Your task to perform on an android device: add a contact in the contacts app Image 0: 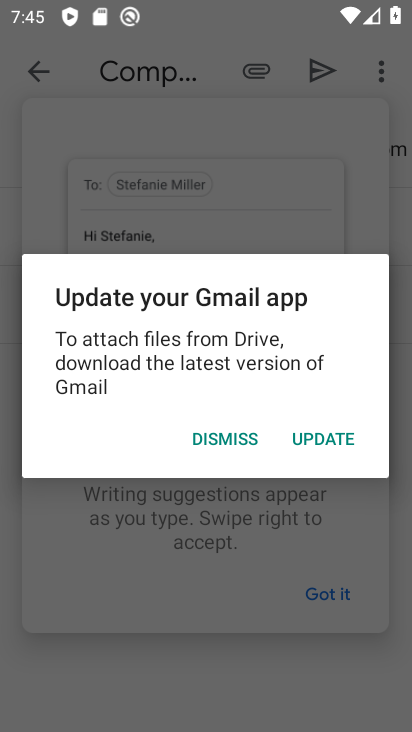
Step 0: press home button
Your task to perform on an android device: add a contact in the contacts app Image 1: 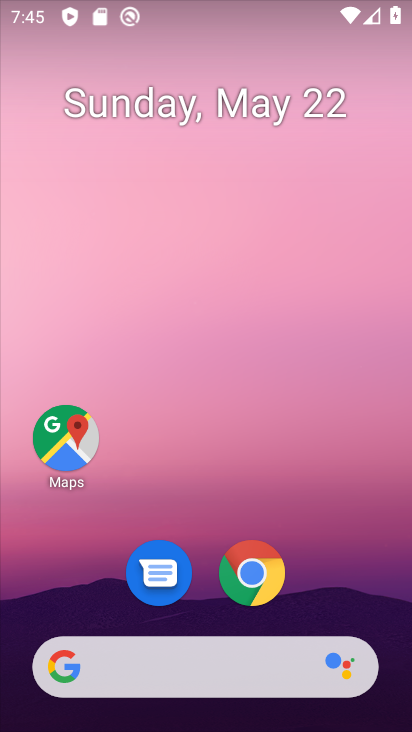
Step 1: drag from (331, 616) to (365, 108)
Your task to perform on an android device: add a contact in the contacts app Image 2: 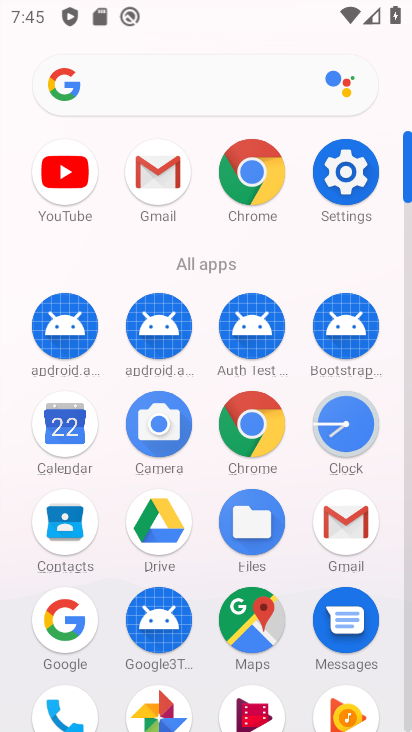
Step 2: click (56, 548)
Your task to perform on an android device: add a contact in the contacts app Image 3: 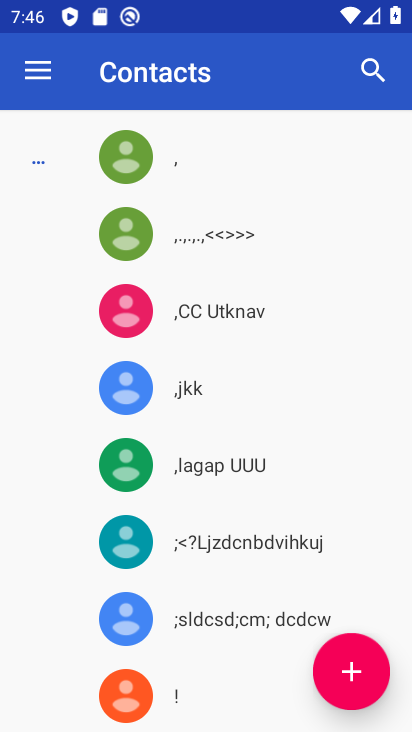
Step 3: click (353, 678)
Your task to perform on an android device: add a contact in the contacts app Image 4: 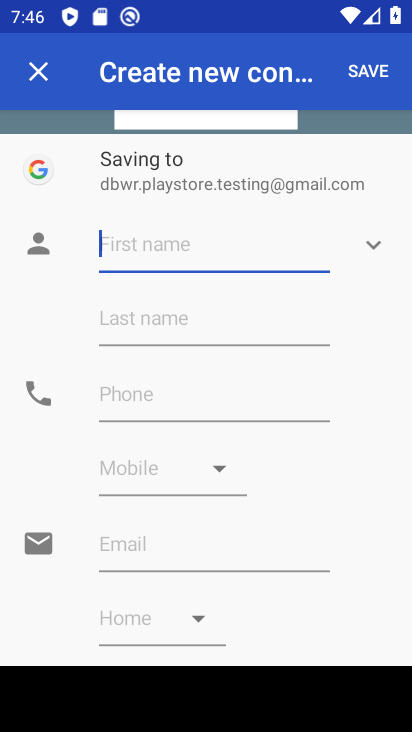
Step 4: type "harish"
Your task to perform on an android device: add a contact in the contacts app Image 5: 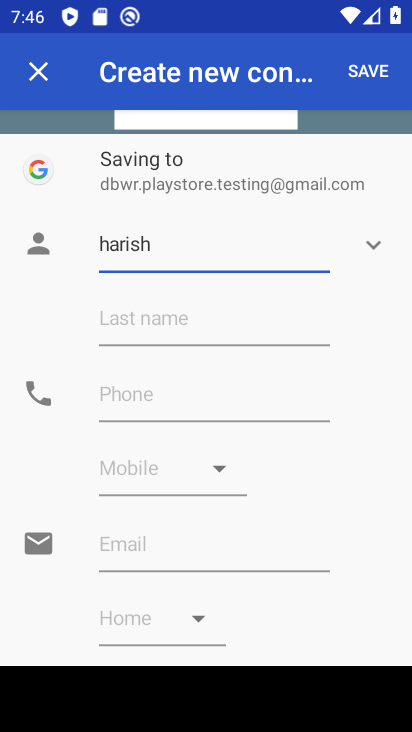
Step 5: click (155, 412)
Your task to perform on an android device: add a contact in the contacts app Image 6: 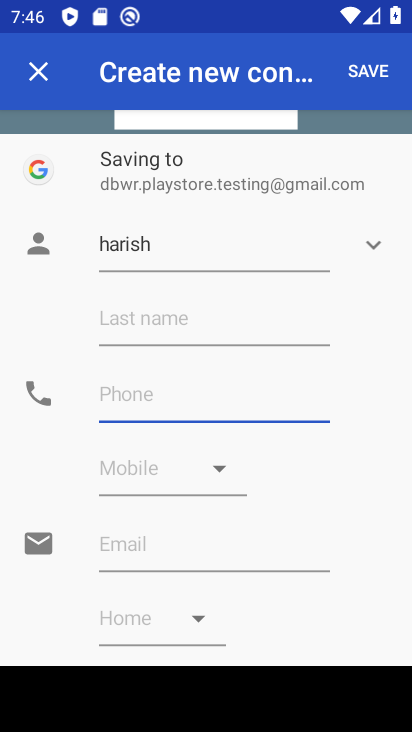
Step 6: type "8987676754"
Your task to perform on an android device: add a contact in the contacts app Image 7: 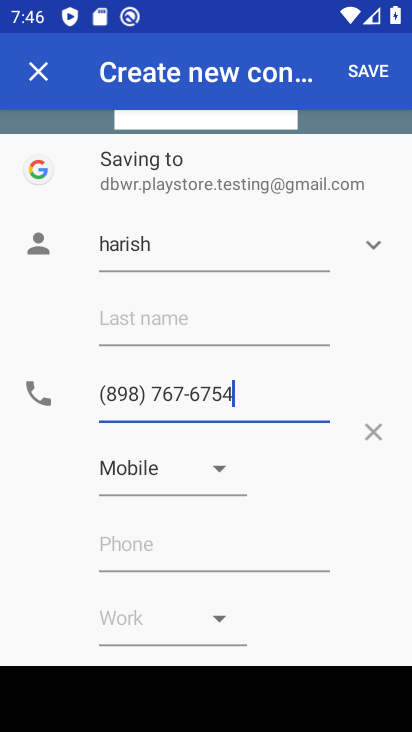
Step 7: click (365, 72)
Your task to perform on an android device: add a contact in the contacts app Image 8: 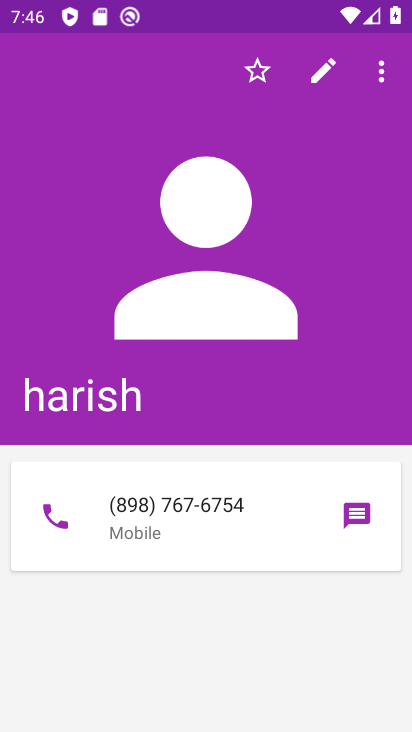
Step 8: task complete